Your task to perform on an android device: Go to Wikipedia Image 0: 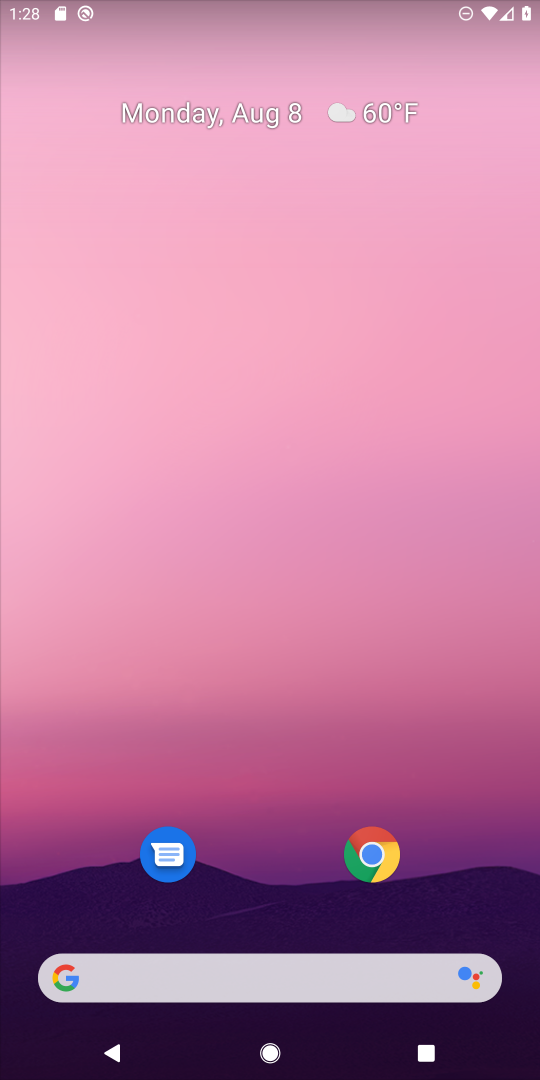
Step 0: drag from (0, 0) to (336, 810)
Your task to perform on an android device: Go to Wikipedia Image 1: 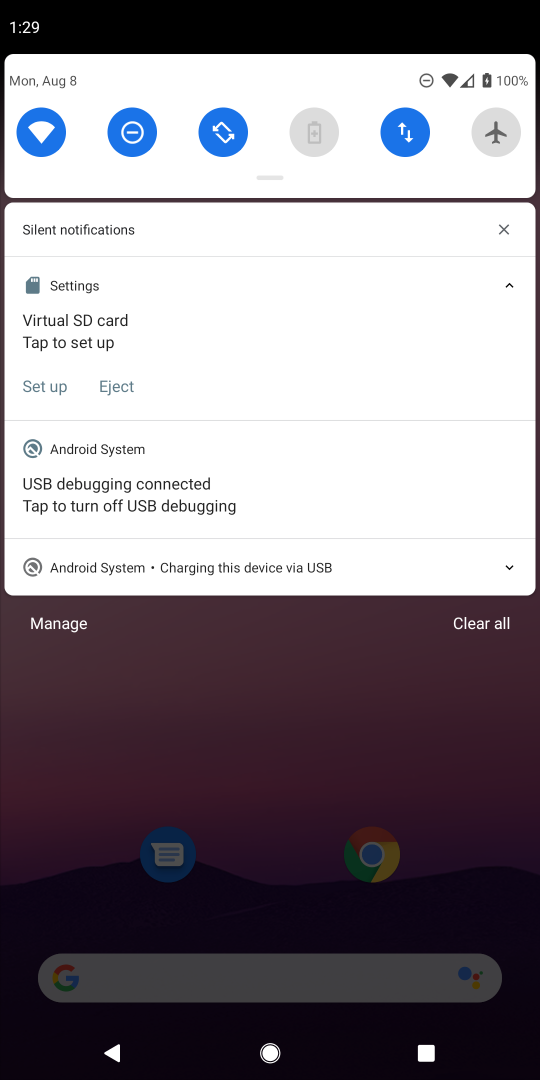
Step 1: press home button
Your task to perform on an android device: Go to Wikipedia Image 2: 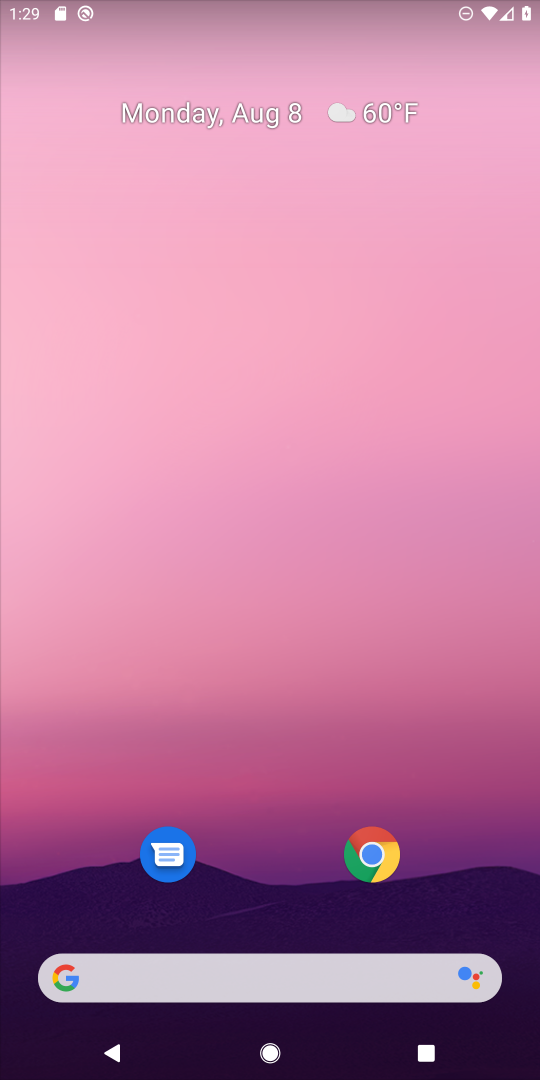
Step 2: click (72, 970)
Your task to perform on an android device: Go to Wikipedia Image 3: 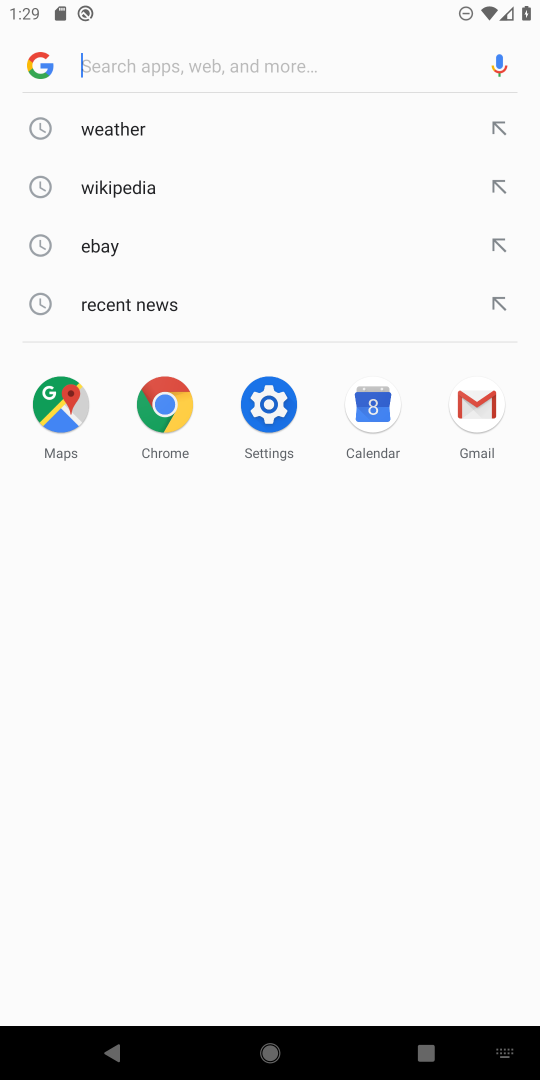
Step 3: click (104, 184)
Your task to perform on an android device: Go to Wikipedia Image 4: 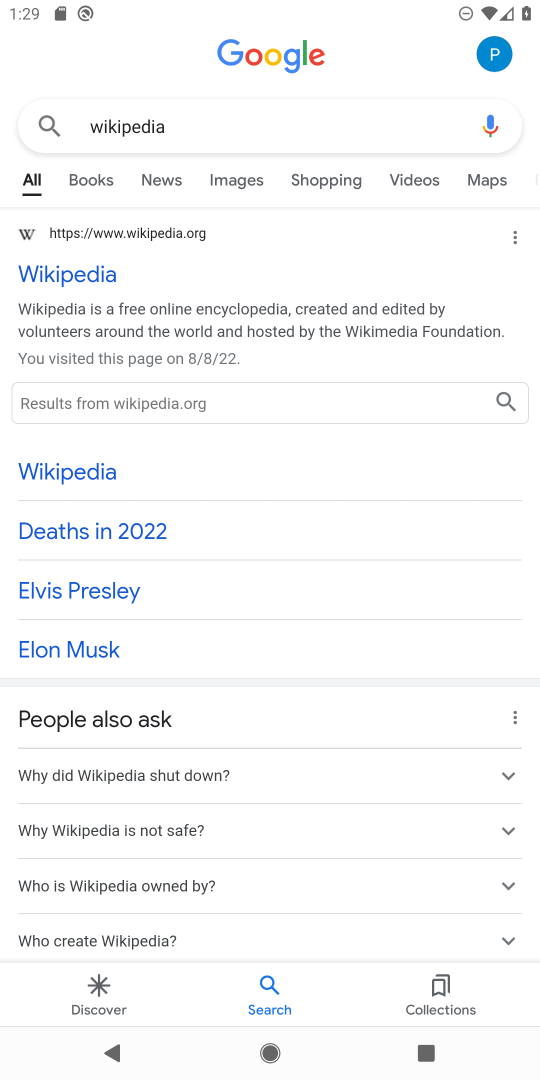
Step 4: click (80, 276)
Your task to perform on an android device: Go to Wikipedia Image 5: 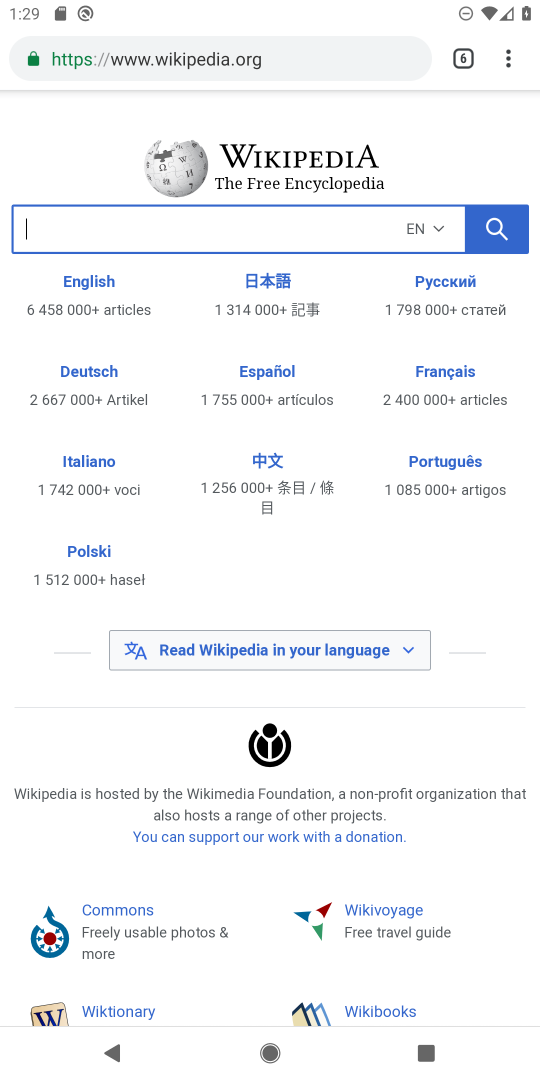
Step 5: task complete